Your task to perform on an android device: Open Android settings Image 0: 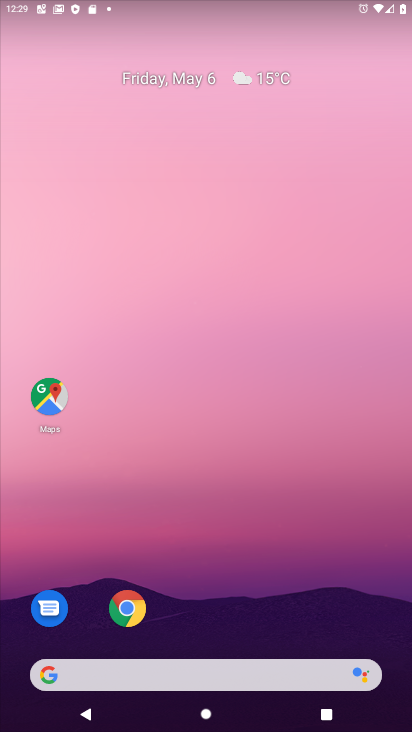
Step 0: drag from (260, 366) to (260, 125)
Your task to perform on an android device: Open Android settings Image 1: 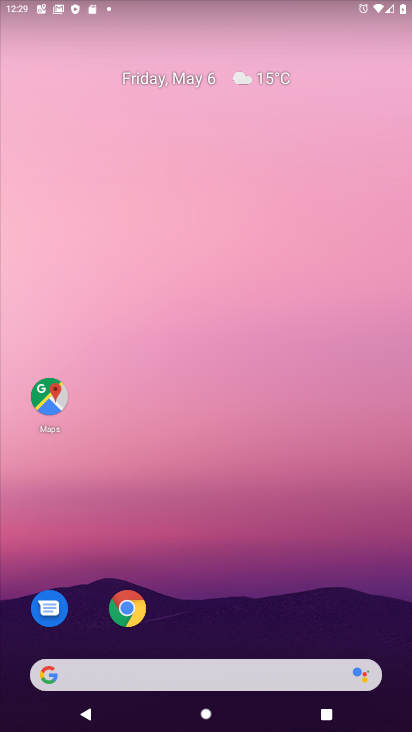
Step 1: drag from (235, 614) to (261, 70)
Your task to perform on an android device: Open Android settings Image 2: 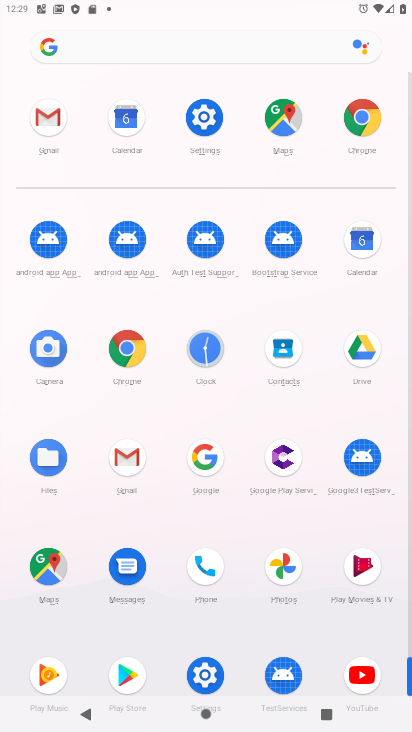
Step 2: click (203, 133)
Your task to perform on an android device: Open Android settings Image 3: 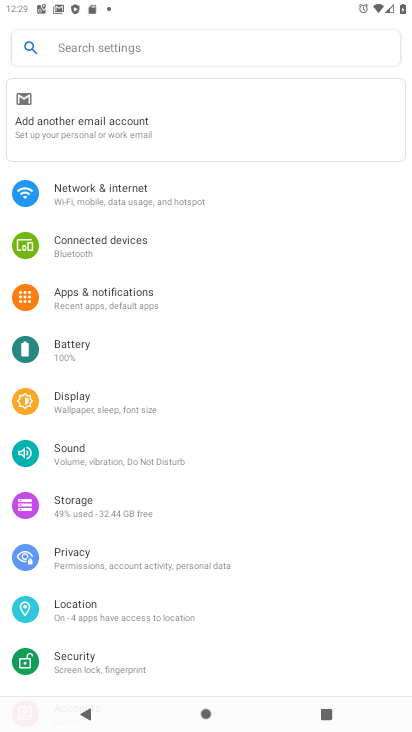
Step 3: drag from (212, 629) to (230, 155)
Your task to perform on an android device: Open Android settings Image 4: 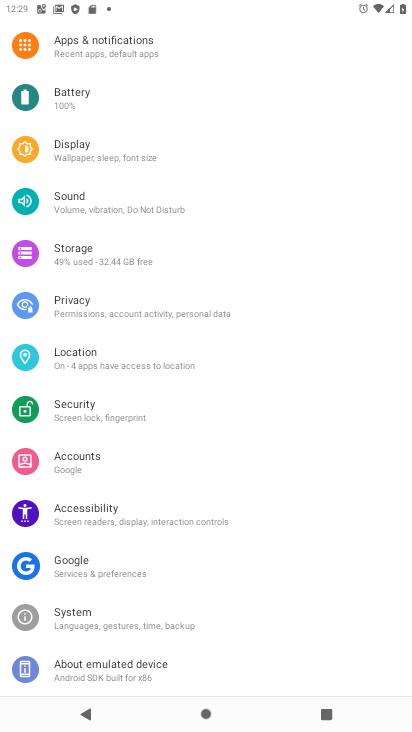
Step 4: click (131, 669)
Your task to perform on an android device: Open Android settings Image 5: 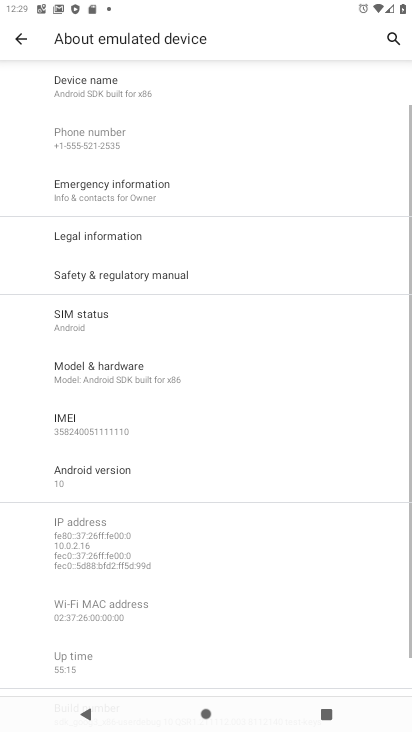
Step 5: click (96, 474)
Your task to perform on an android device: Open Android settings Image 6: 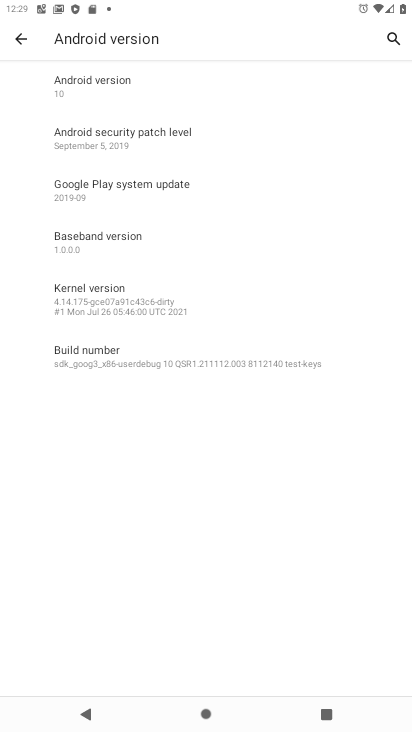
Step 6: task complete